Your task to perform on an android device: Find coffee shops on Maps Image 0: 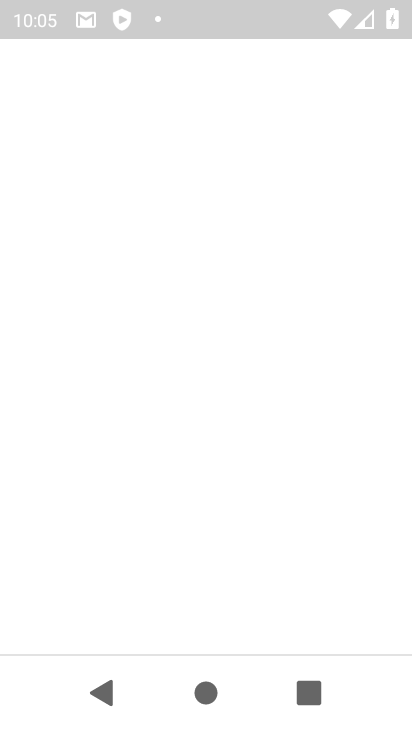
Step 0: drag from (342, 412) to (343, 375)
Your task to perform on an android device: Find coffee shops on Maps Image 1: 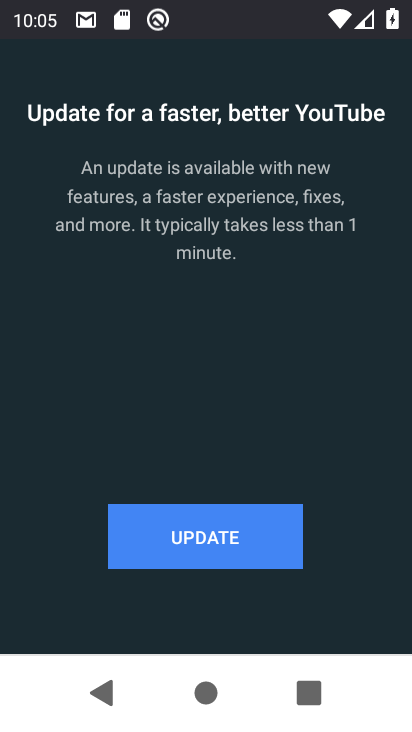
Step 1: press home button
Your task to perform on an android device: Find coffee shops on Maps Image 2: 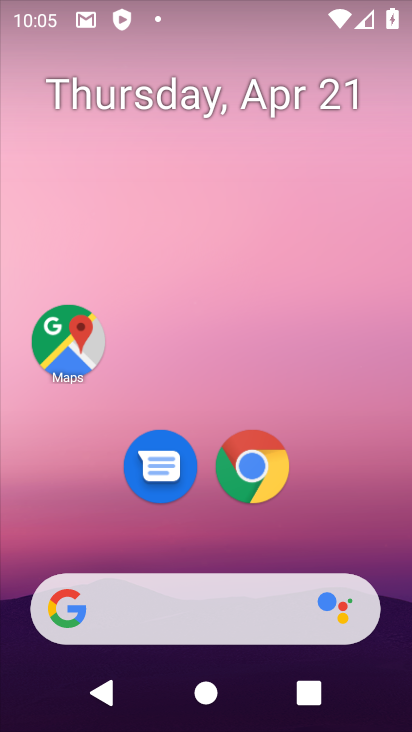
Step 2: drag from (320, 510) to (318, 99)
Your task to perform on an android device: Find coffee shops on Maps Image 3: 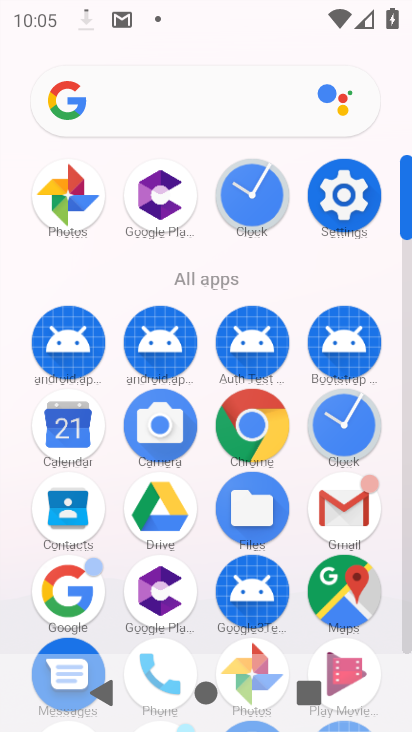
Step 3: click (360, 583)
Your task to perform on an android device: Find coffee shops on Maps Image 4: 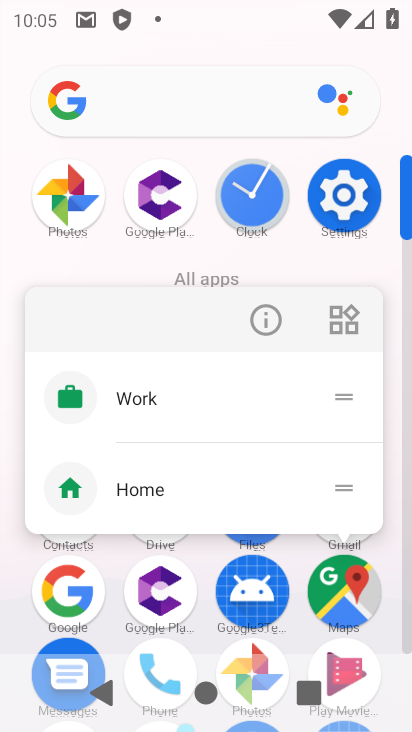
Step 4: click (353, 592)
Your task to perform on an android device: Find coffee shops on Maps Image 5: 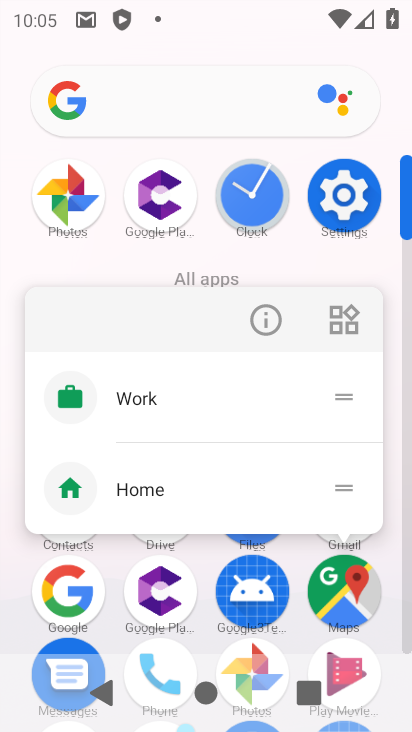
Step 5: click (341, 608)
Your task to perform on an android device: Find coffee shops on Maps Image 6: 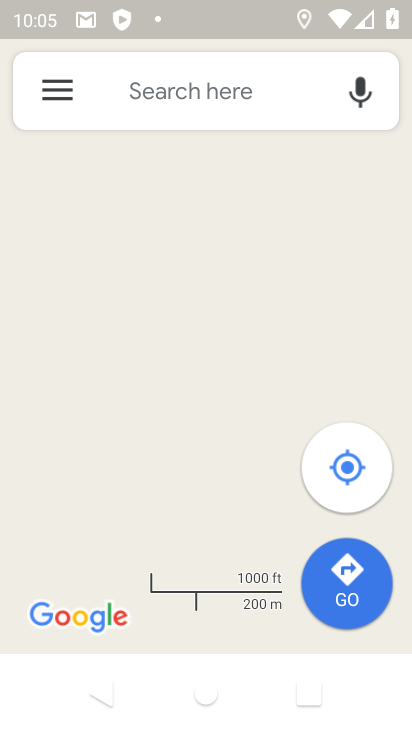
Step 6: click (187, 74)
Your task to perform on an android device: Find coffee shops on Maps Image 7: 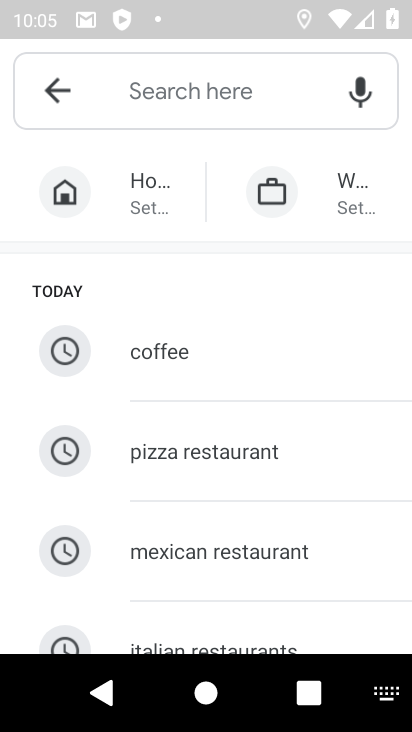
Step 7: type "coffee shops"
Your task to perform on an android device: Find coffee shops on Maps Image 8: 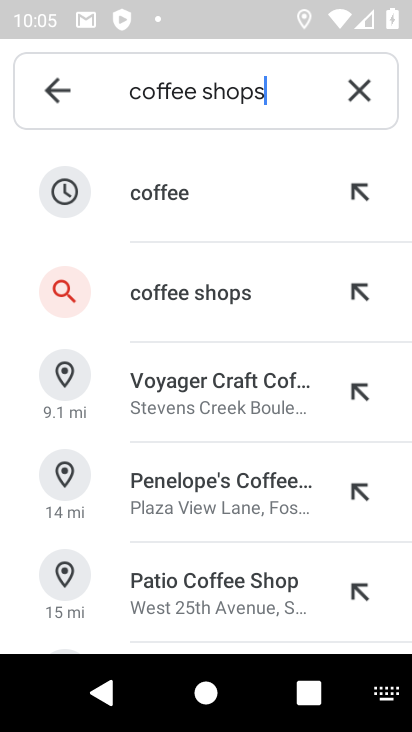
Step 8: click (206, 306)
Your task to perform on an android device: Find coffee shops on Maps Image 9: 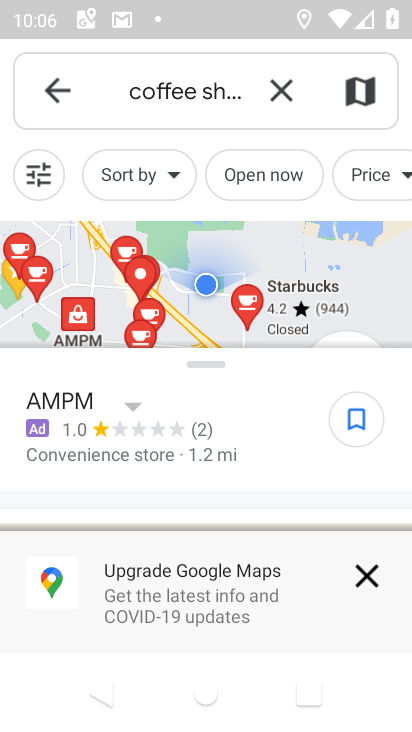
Step 9: task complete